Your task to perform on an android device: toggle translation in the chrome app Image 0: 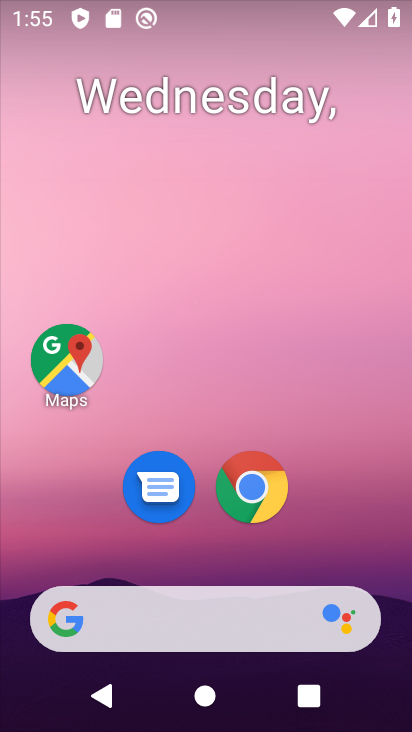
Step 0: click (255, 482)
Your task to perform on an android device: toggle translation in the chrome app Image 1: 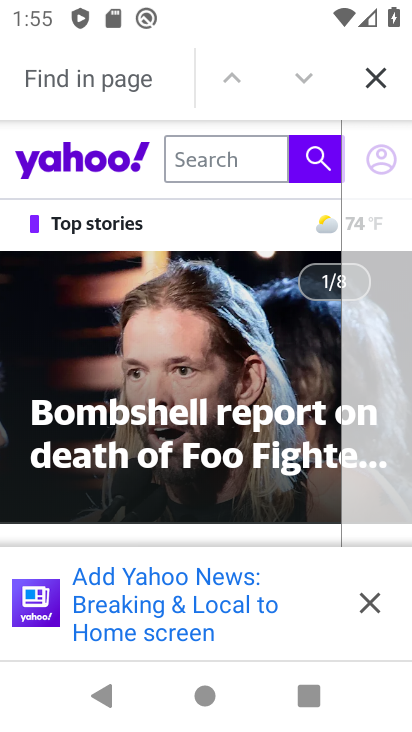
Step 1: click (375, 73)
Your task to perform on an android device: toggle translation in the chrome app Image 2: 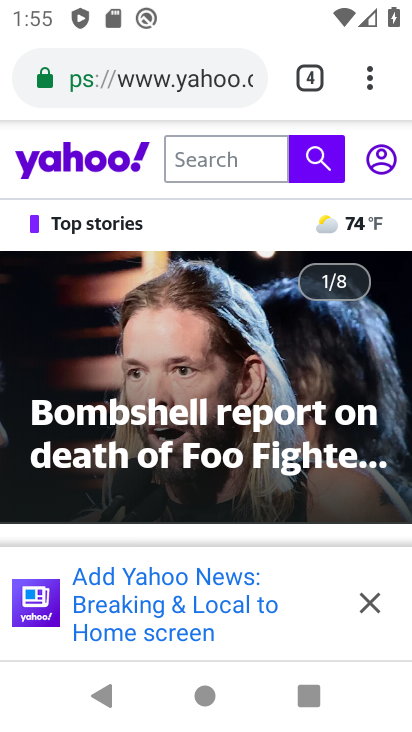
Step 2: click (362, 78)
Your task to perform on an android device: toggle translation in the chrome app Image 3: 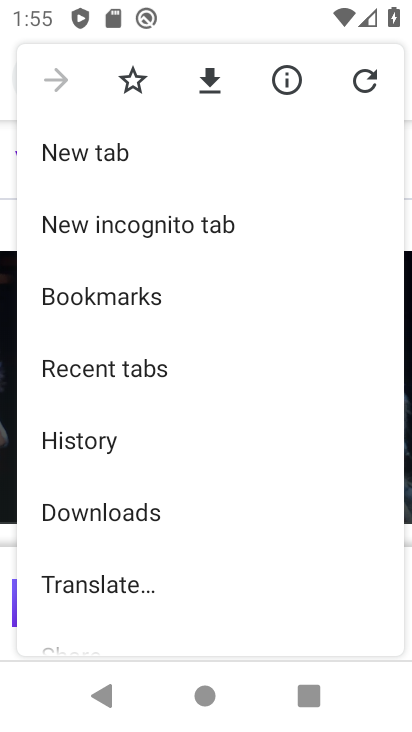
Step 3: click (99, 587)
Your task to perform on an android device: toggle translation in the chrome app Image 4: 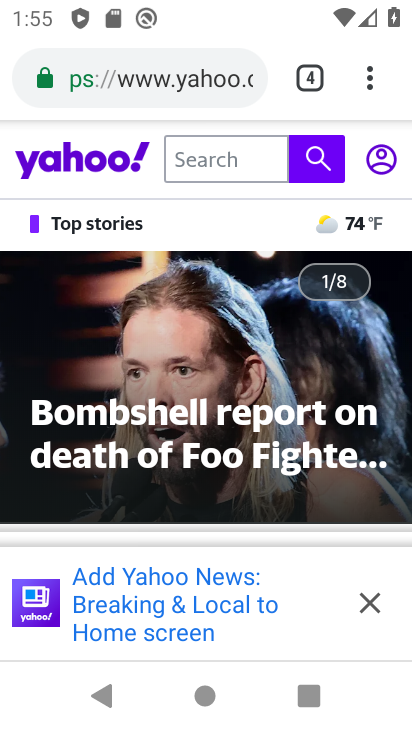
Step 4: click (364, 80)
Your task to perform on an android device: toggle translation in the chrome app Image 5: 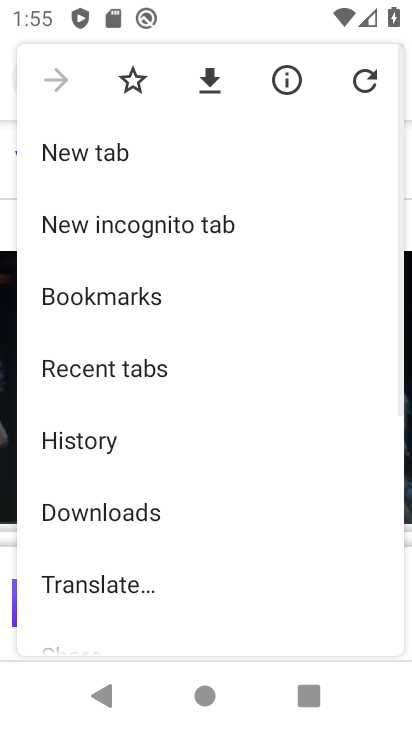
Step 5: drag from (241, 530) to (157, 284)
Your task to perform on an android device: toggle translation in the chrome app Image 6: 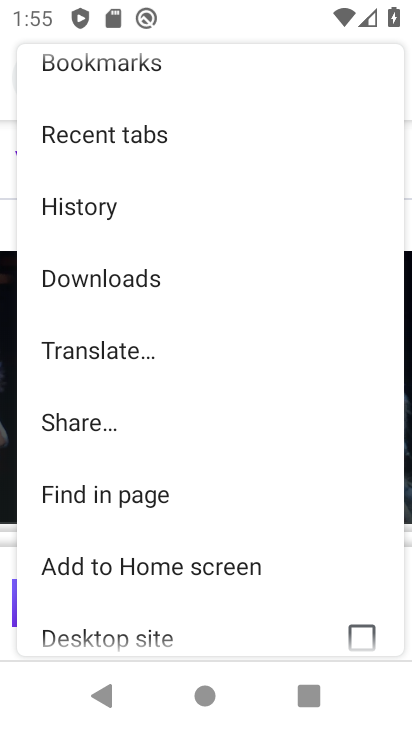
Step 6: drag from (198, 489) to (175, 226)
Your task to perform on an android device: toggle translation in the chrome app Image 7: 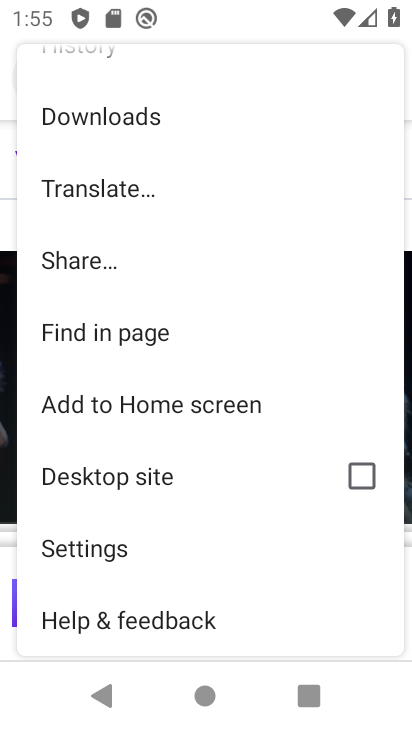
Step 7: click (93, 540)
Your task to perform on an android device: toggle translation in the chrome app Image 8: 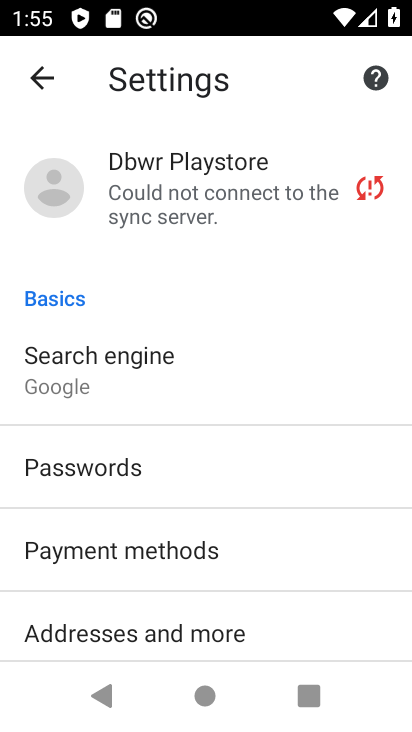
Step 8: drag from (283, 593) to (229, 232)
Your task to perform on an android device: toggle translation in the chrome app Image 9: 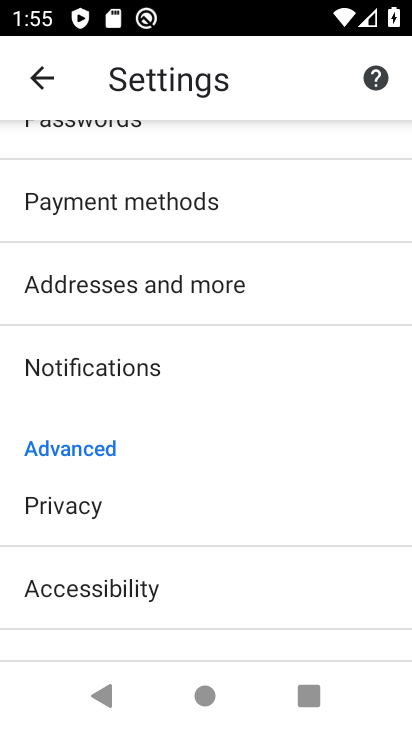
Step 9: drag from (246, 523) to (240, 222)
Your task to perform on an android device: toggle translation in the chrome app Image 10: 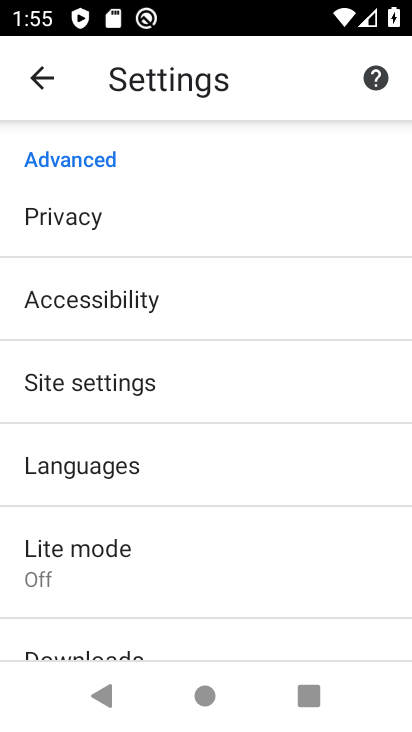
Step 10: click (99, 458)
Your task to perform on an android device: toggle translation in the chrome app Image 11: 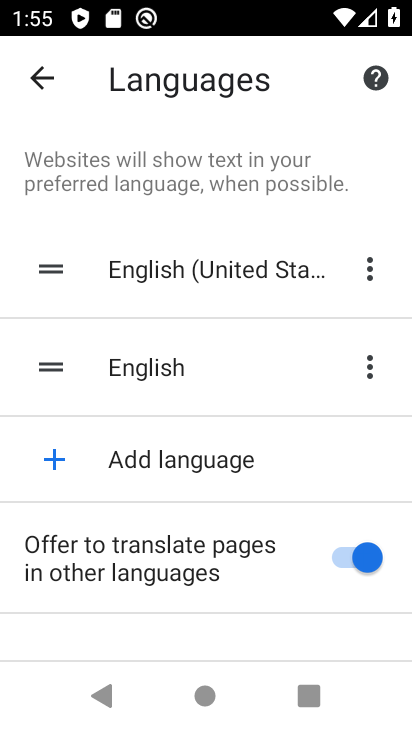
Step 11: click (370, 566)
Your task to perform on an android device: toggle translation in the chrome app Image 12: 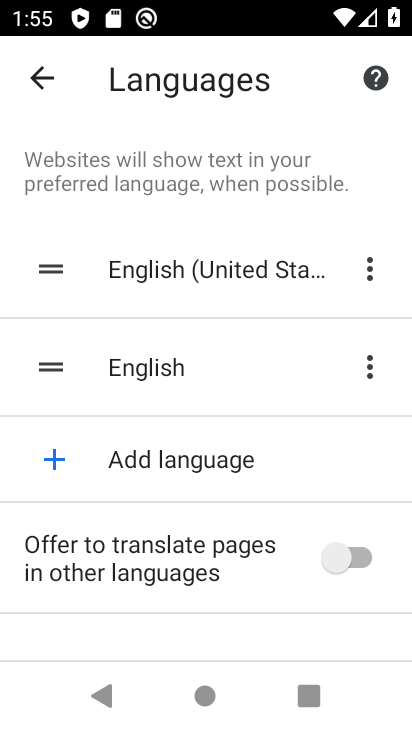
Step 12: task complete